Your task to perform on an android device: open the mobile data screen to see how much data has been used Image 0: 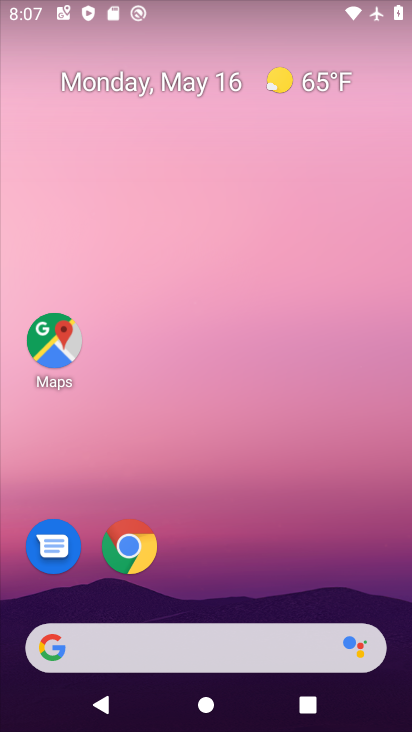
Step 0: drag from (217, 596) to (288, 9)
Your task to perform on an android device: open the mobile data screen to see how much data has been used Image 1: 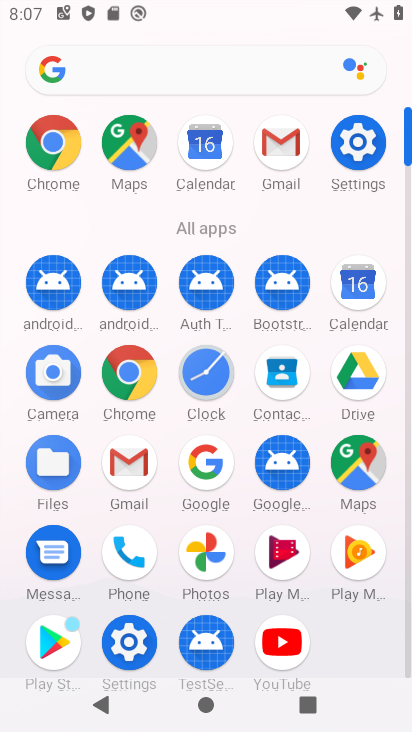
Step 1: click (359, 161)
Your task to perform on an android device: open the mobile data screen to see how much data has been used Image 2: 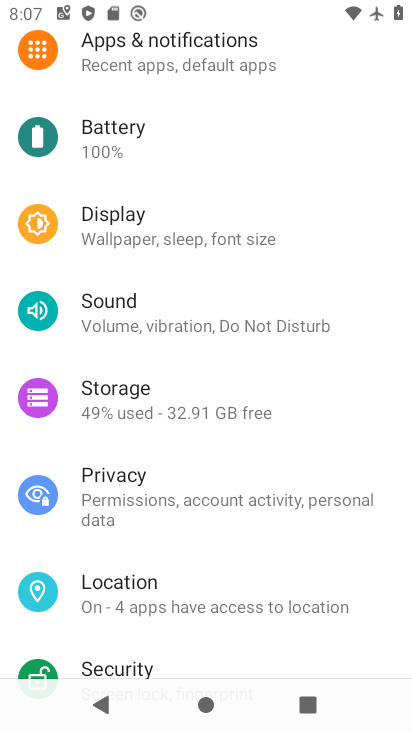
Step 2: drag from (212, 124) to (275, 606)
Your task to perform on an android device: open the mobile data screen to see how much data has been used Image 3: 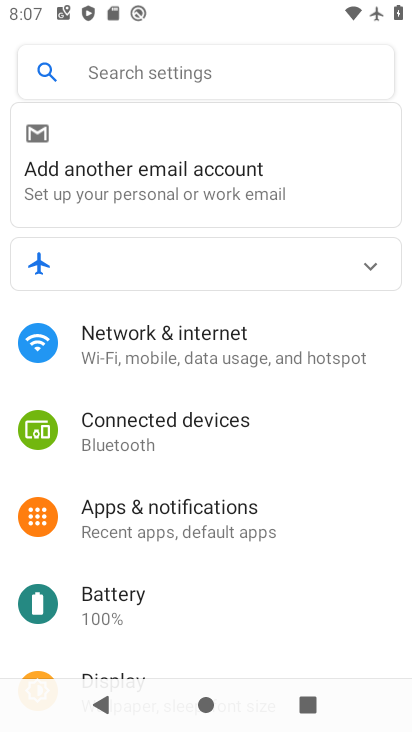
Step 3: click (203, 340)
Your task to perform on an android device: open the mobile data screen to see how much data has been used Image 4: 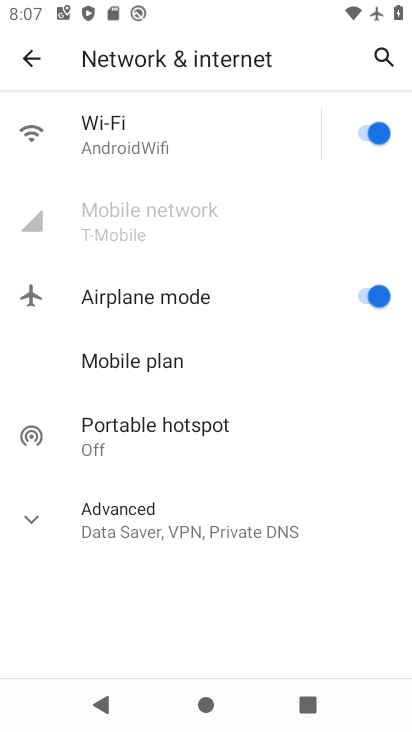
Step 4: click (357, 296)
Your task to perform on an android device: open the mobile data screen to see how much data has been used Image 5: 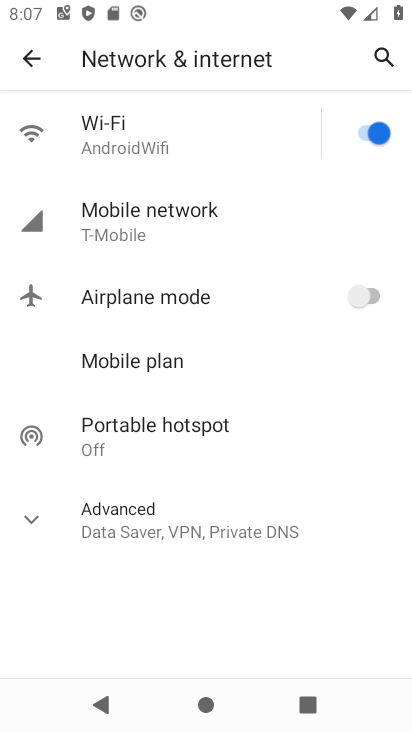
Step 5: click (218, 219)
Your task to perform on an android device: open the mobile data screen to see how much data has been used Image 6: 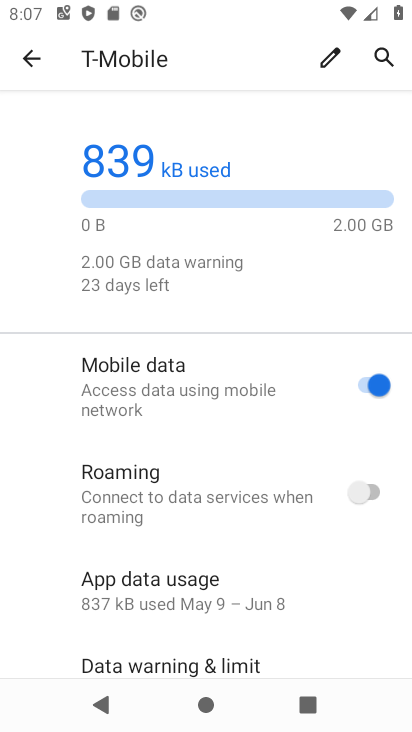
Step 6: task complete